Your task to perform on an android device: create a new album in the google photos Image 0: 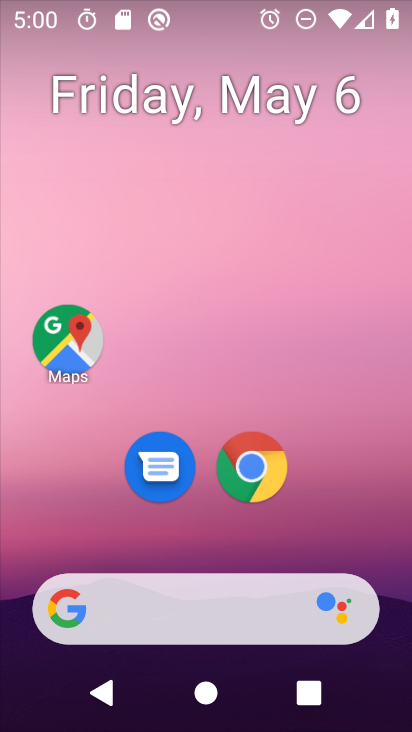
Step 0: drag from (308, 512) to (224, 157)
Your task to perform on an android device: create a new album in the google photos Image 1: 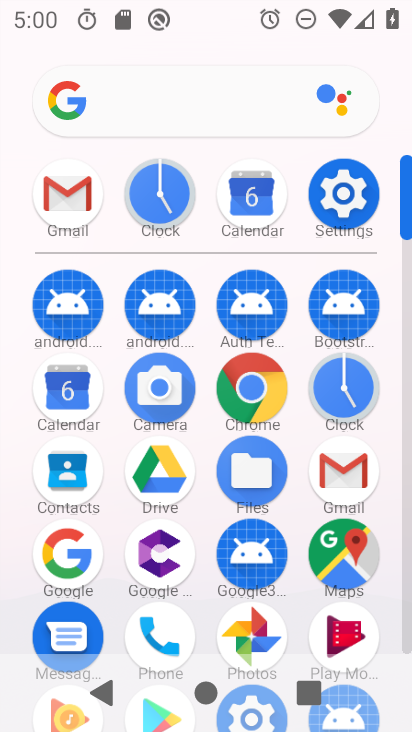
Step 1: click (242, 623)
Your task to perform on an android device: create a new album in the google photos Image 2: 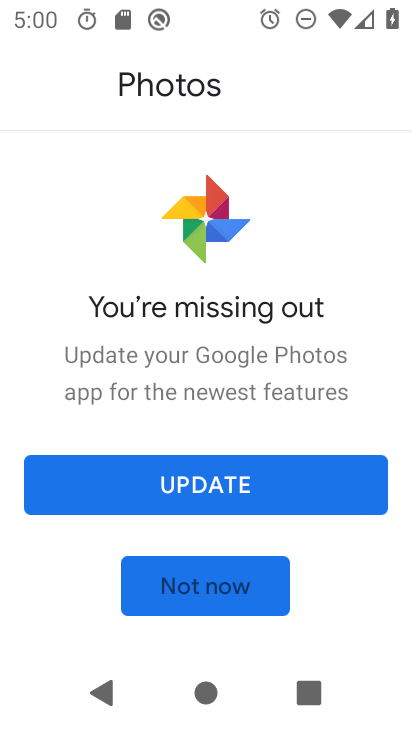
Step 2: click (245, 584)
Your task to perform on an android device: create a new album in the google photos Image 3: 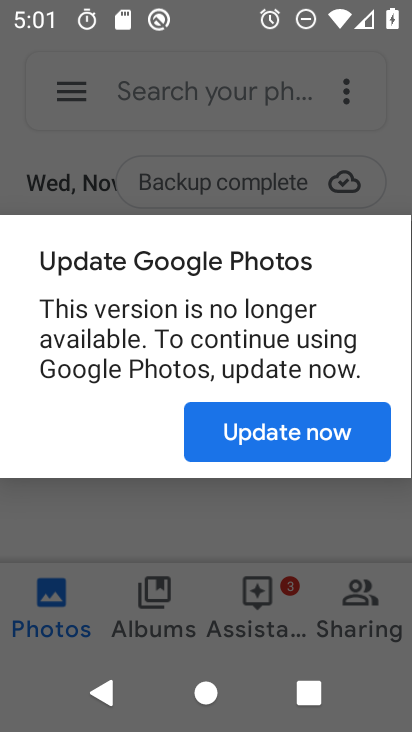
Step 3: click (277, 440)
Your task to perform on an android device: create a new album in the google photos Image 4: 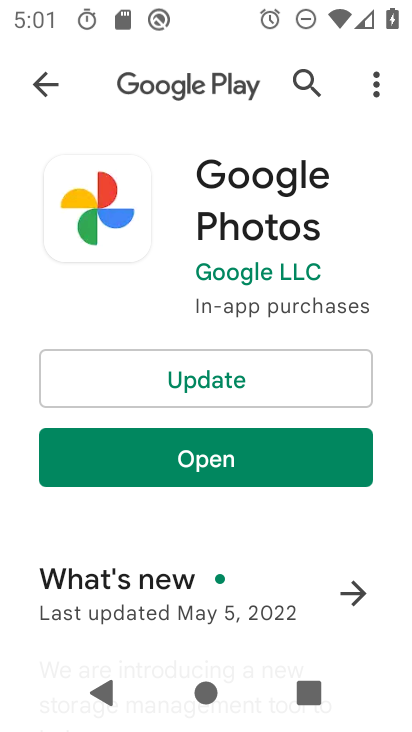
Step 4: click (227, 454)
Your task to perform on an android device: create a new album in the google photos Image 5: 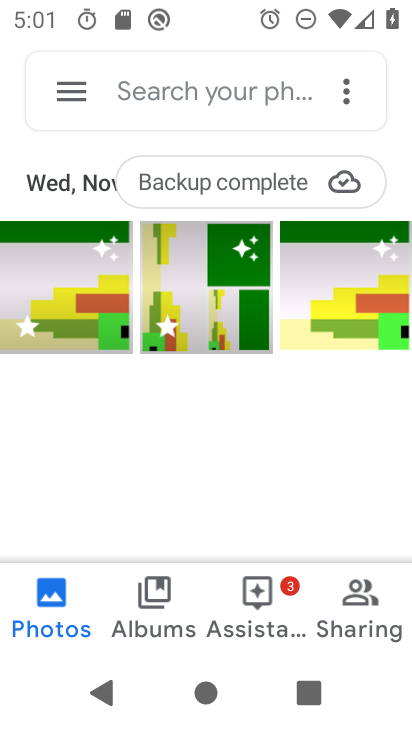
Step 5: click (167, 599)
Your task to perform on an android device: create a new album in the google photos Image 6: 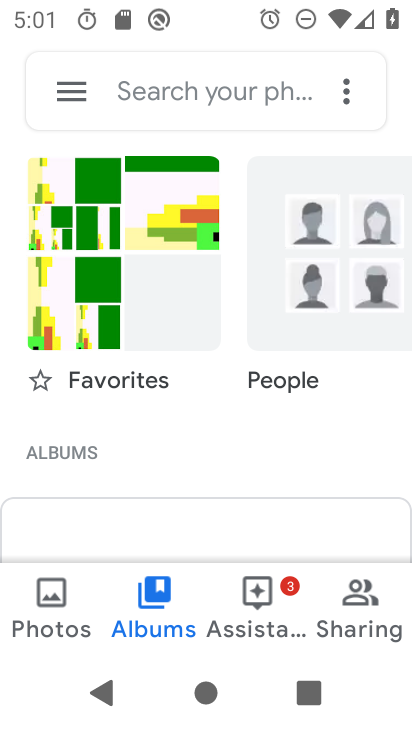
Step 6: click (68, 73)
Your task to perform on an android device: create a new album in the google photos Image 7: 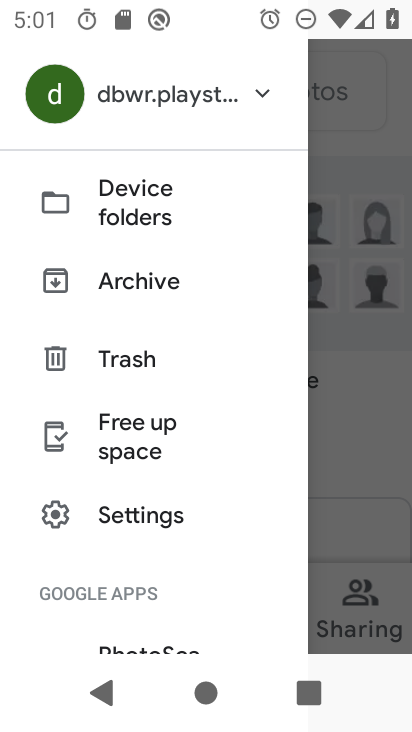
Step 7: press back button
Your task to perform on an android device: create a new album in the google photos Image 8: 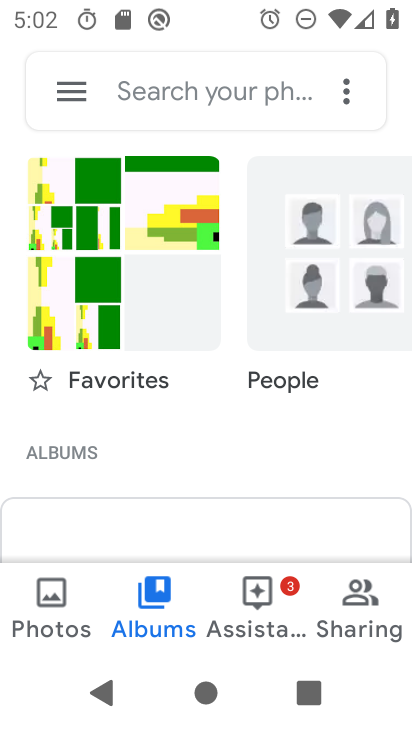
Step 8: click (159, 612)
Your task to perform on an android device: create a new album in the google photos Image 9: 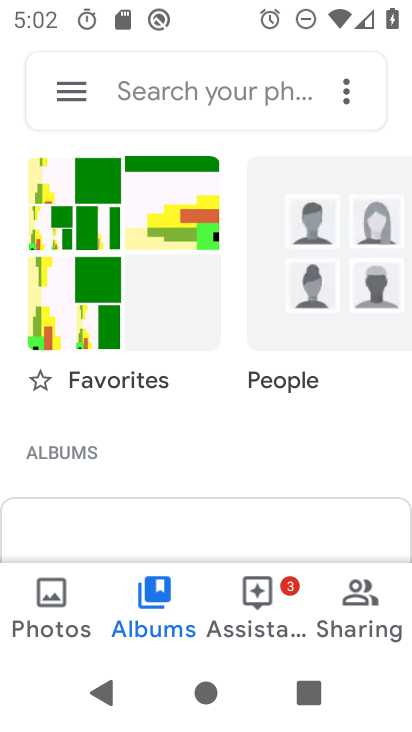
Step 9: drag from (209, 528) to (237, 268)
Your task to perform on an android device: create a new album in the google photos Image 10: 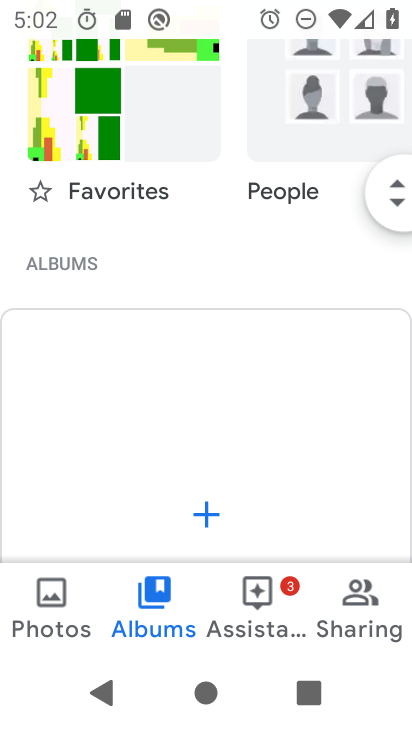
Step 10: click (212, 527)
Your task to perform on an android device: create a new album in the google photos Image 11: 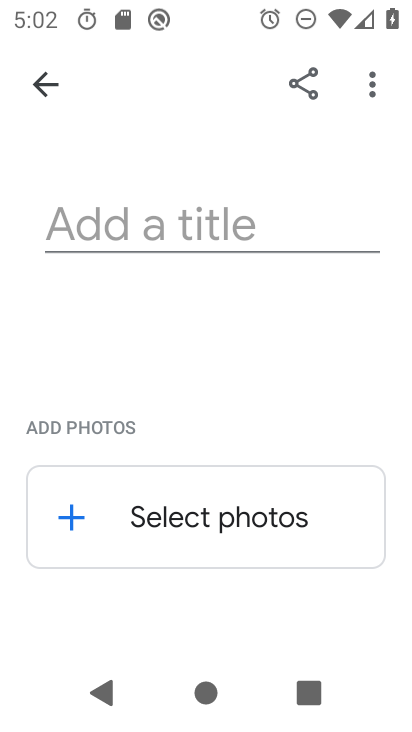
Step 11: click (307, 203)
Your task to perform on an android device: create a new album in the google photos Image 12: 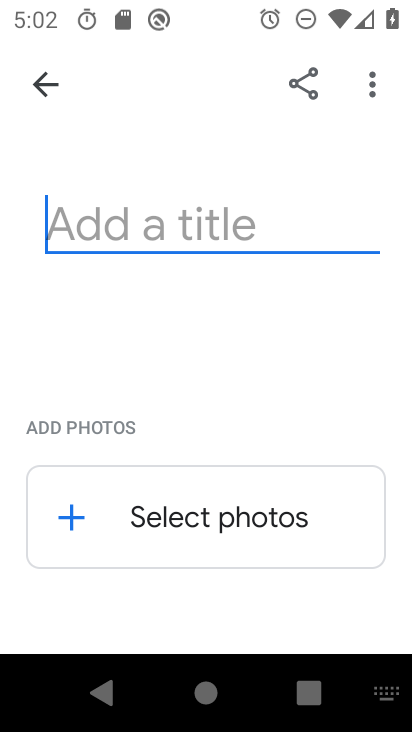
Step 12: type "taranjit"
Your task to perform on an android device: create a new album in the google photos Image 13: 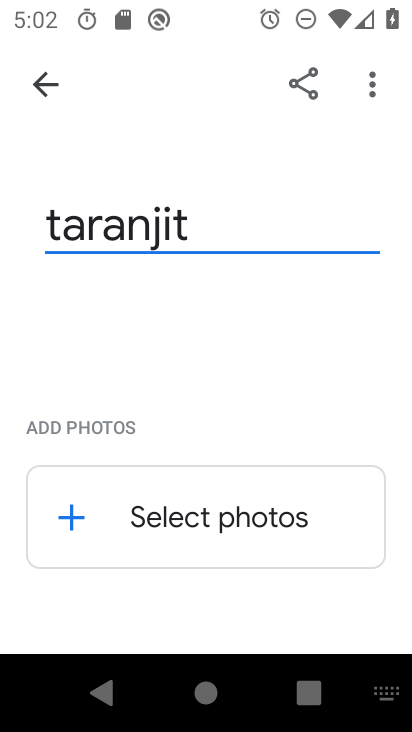
Step 13: click (370, 488)
Your task to perform on an android device: create a new album in the google photos Image 14: 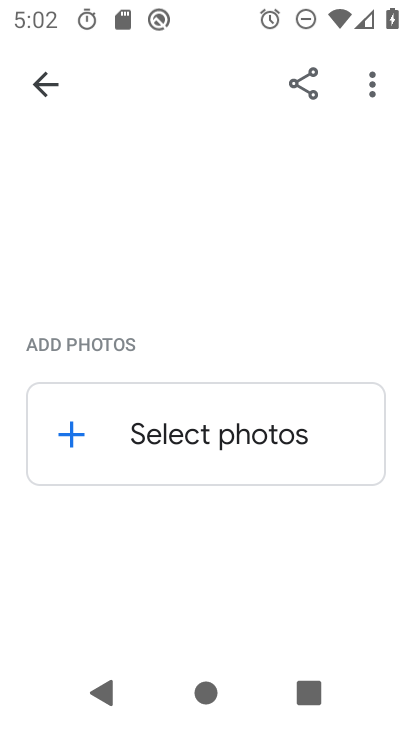
Step 14: click (139, 443)
Your task to perform on an android device: create a new album in the google photos Image 15: 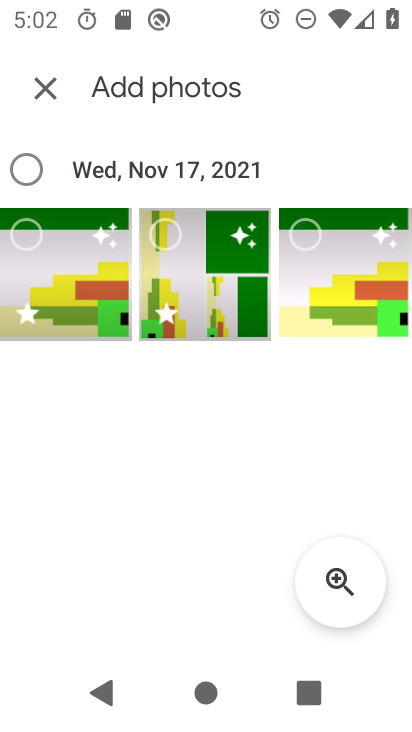
Step 15: click (0, 154)
Your task to perform on an android device: create a new album in the google photos Image 16: 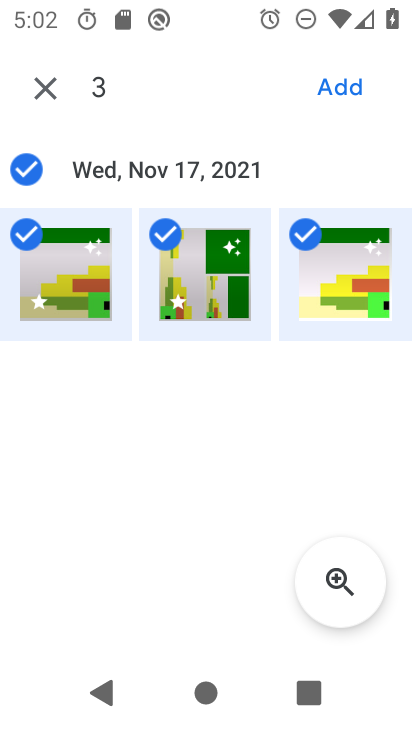
Step 16: task complete